Your task to perform on an android device: Go to Maps Image 0: 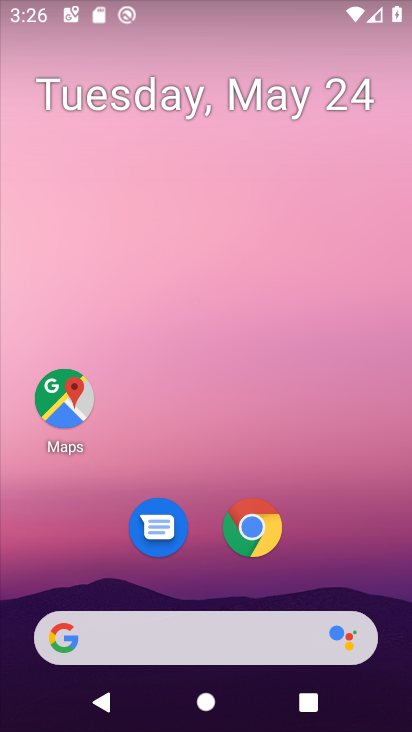
Step 0: click (73, 408)
Your task to perform on an android device: Go to Maps Image 1: 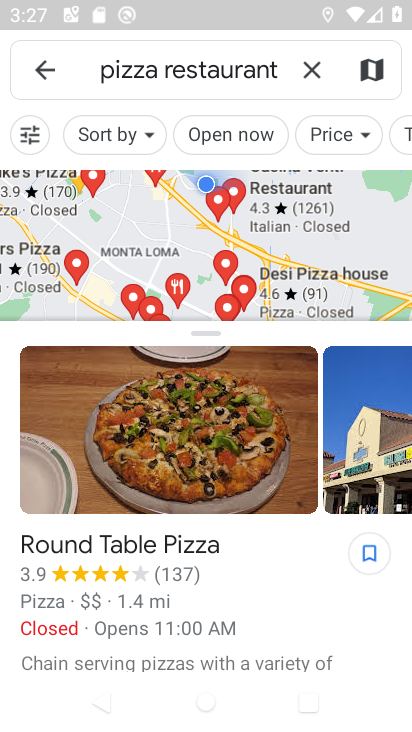
Step 1: task complete